Your task to perform on an android device: toggle notifications settings in the gmail app Image 0: 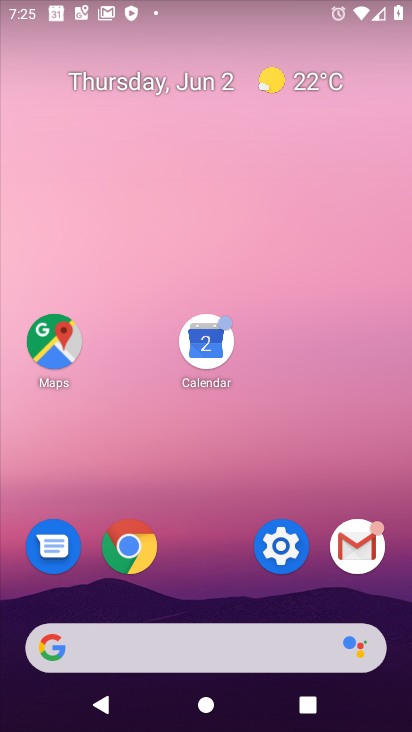
Step 0: press home button
Your task to perform on an android device: toggle notifications settings in the gmail app Image 1: 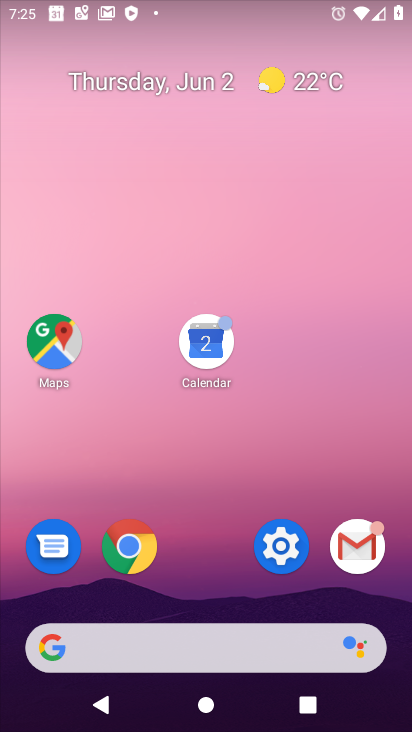
Step 1: click (357, 531)
Your task to perform on an android device: toggle notifications settings in the gmail app Image 2: 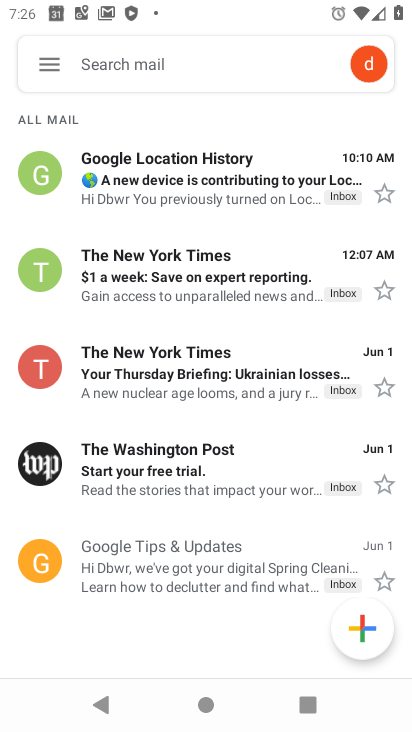
Step 2: click (42, 71)
Your task to perform on an android device: toggle notifications settings in the gmail app Image 3: 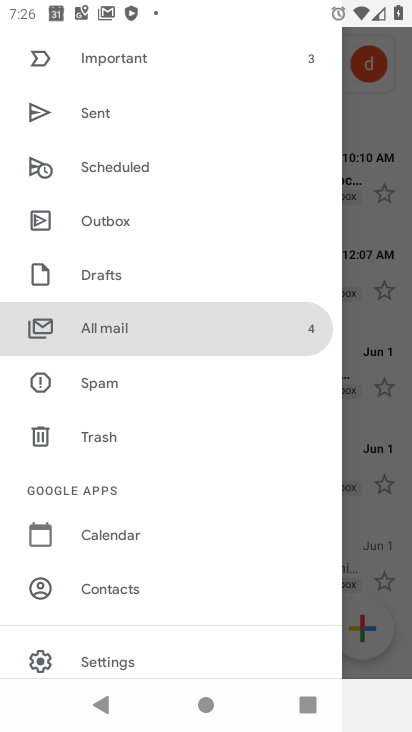
Step 3: click (107, 657)
Your task to perform on an android device: toggle notifications settings in the gmail app Image 4: 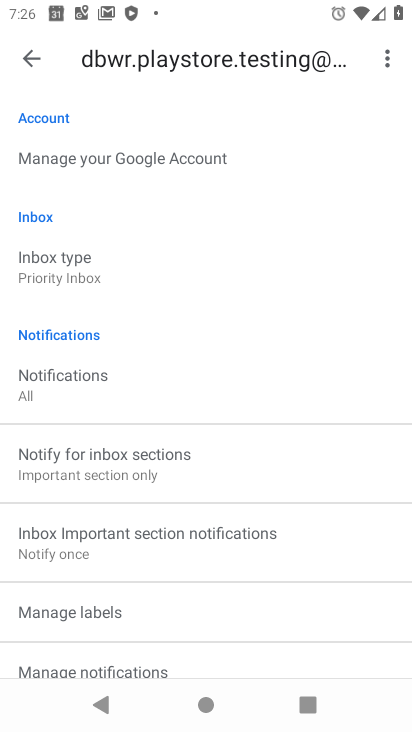
Step 4: click (43, 70)
Your task to perform on an android device: toggle notifications settings in the gmail app Image 5: 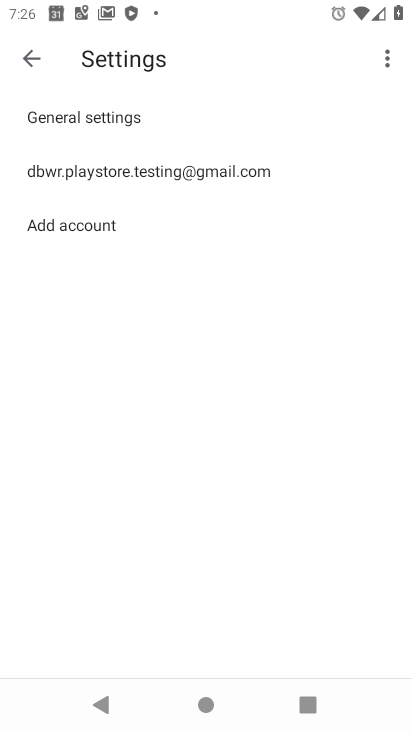
Step 5: click (99, 170)
Your task to perform on an android device: toggle notifications settings in the gmail app Image 6: 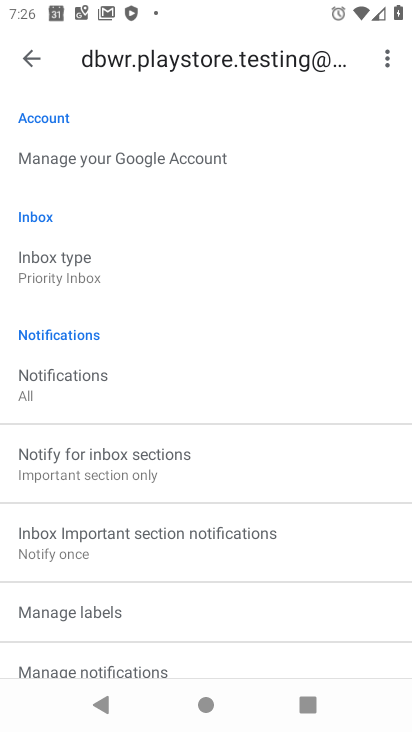
Step 6: click (78, 370)
Your task to perform on an android device: toggle notifications settings in the gmail app Image 7: 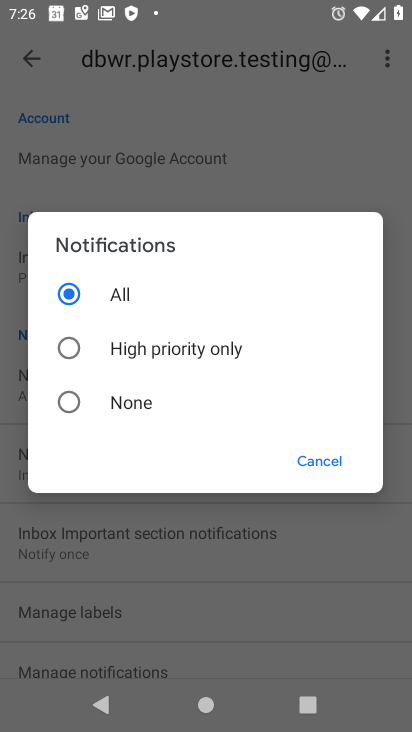
Step 7: task complete